Your task to perform on an android device: Check the news Image 0: 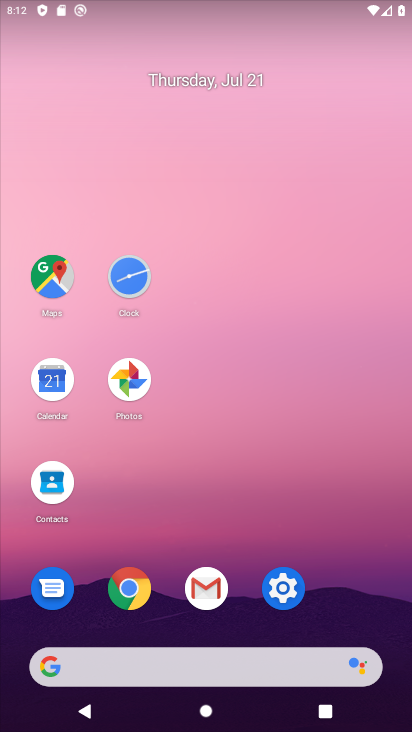
Step 0: drag from (23, 169) to (399, 301)
Your task to perform on an android device: Check the news Image 1: 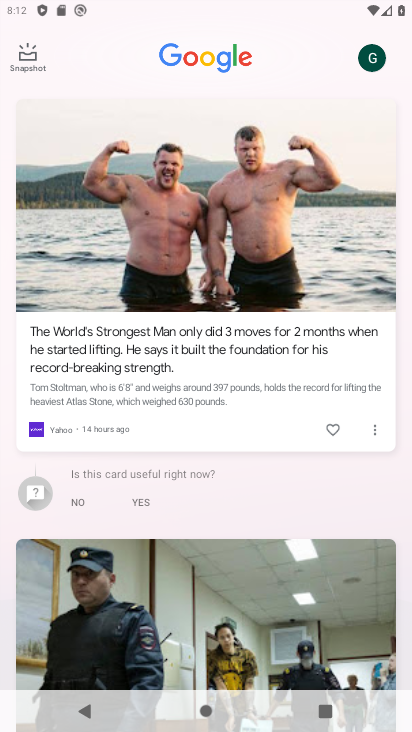
Step 1: task complete